Your task to perform on an android device: Open maps Image 0: 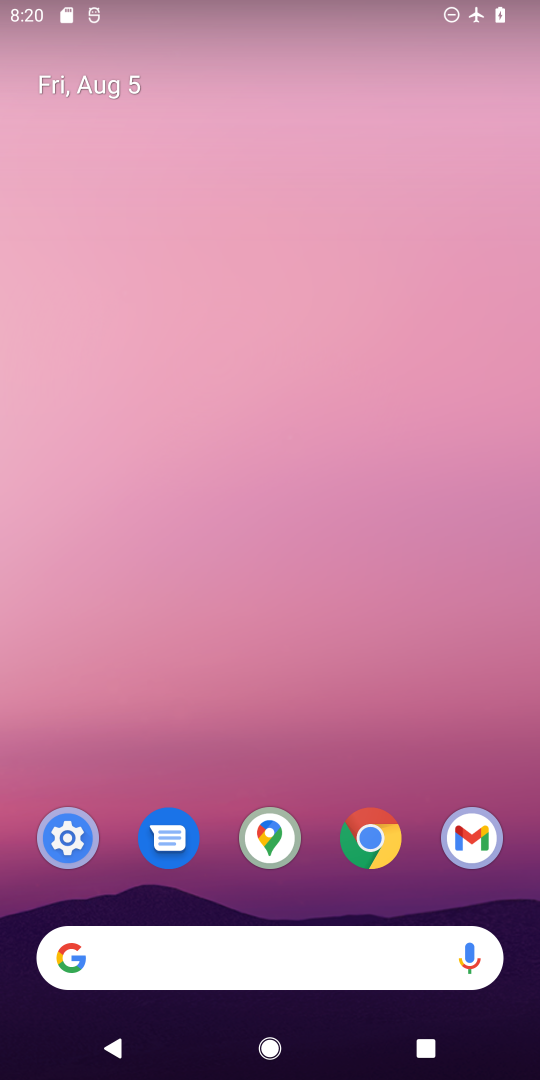
Step 0: click (275, 845)
Your task to perform on an android device: Open maps Image 1: 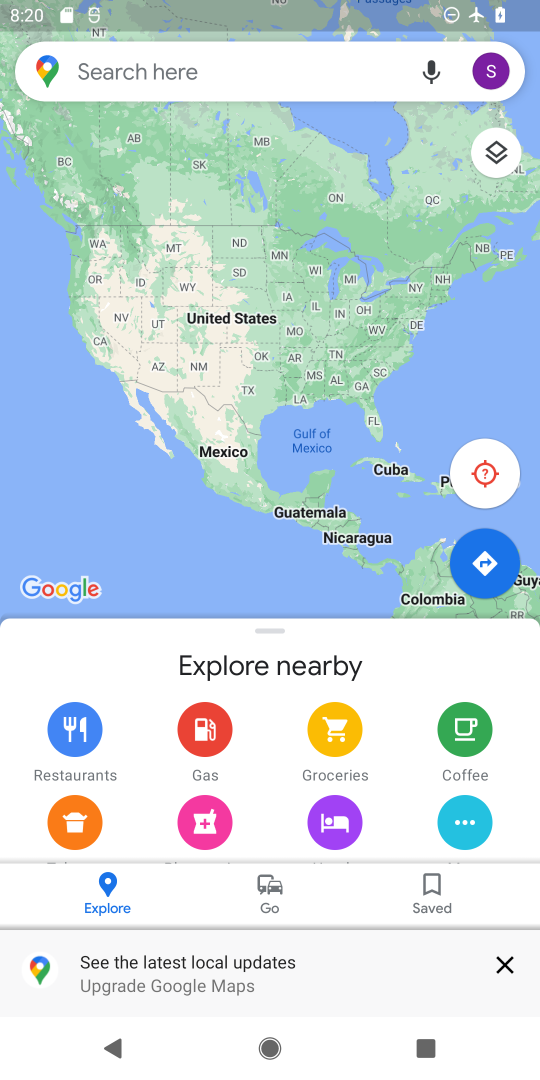
Step 1: task complete